Your task to perform on an android device: Open the stopwatch Image 0: 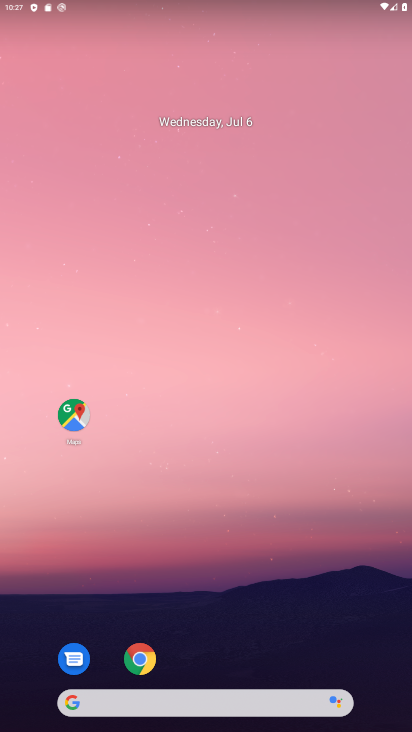
Step 0: drag from (198, 616) to (254, 7)
Your task to perform on an android device: Open the stopwatch Image 1: 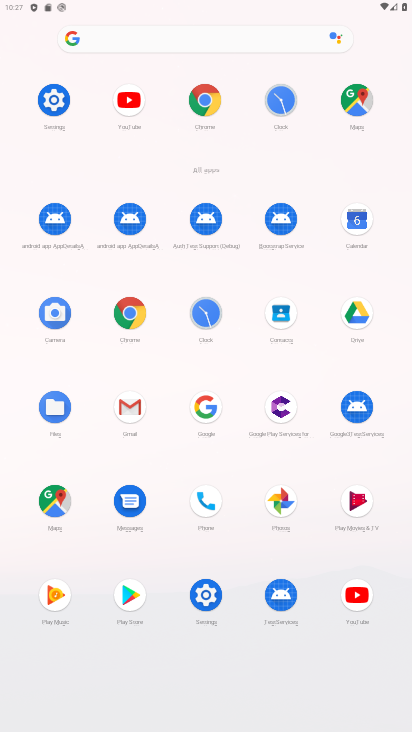
Step 1: click (277, 104)
Your task to perform on an android device: Open the stopwatch Image 2: 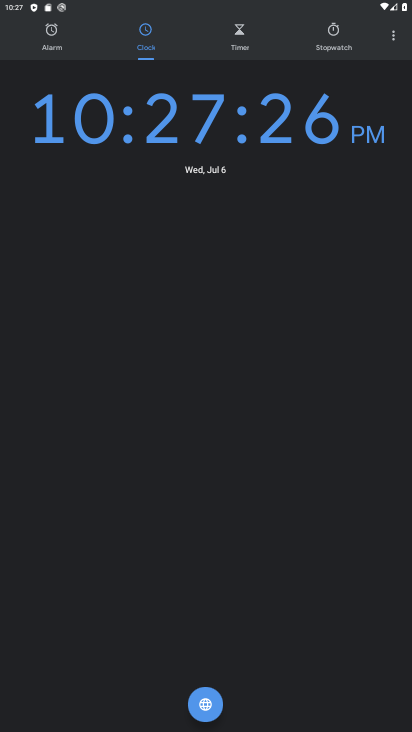
Step 2: click (338, 47)
Your task to perform on an android device: Open the stopwatch Image 3: 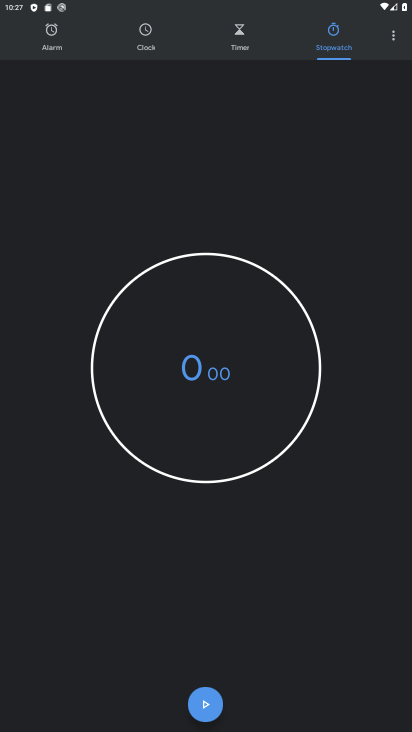
Step 3: click (354, 32)
Your task to perform on an android device: Open the stopwatch Image 4: 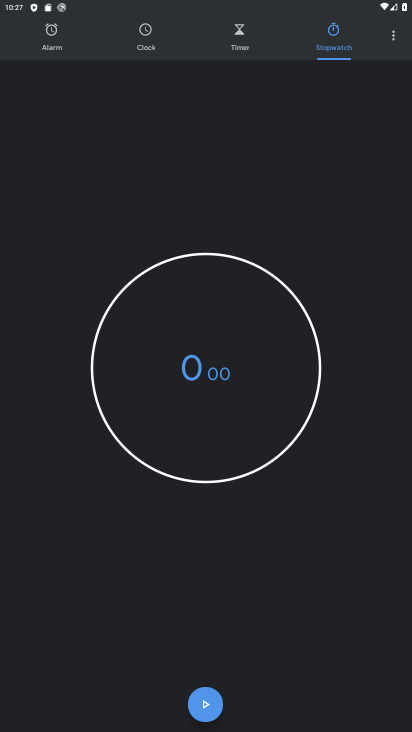
Step 4: task complete